Your task to perform on an android device: check android version Image 0: 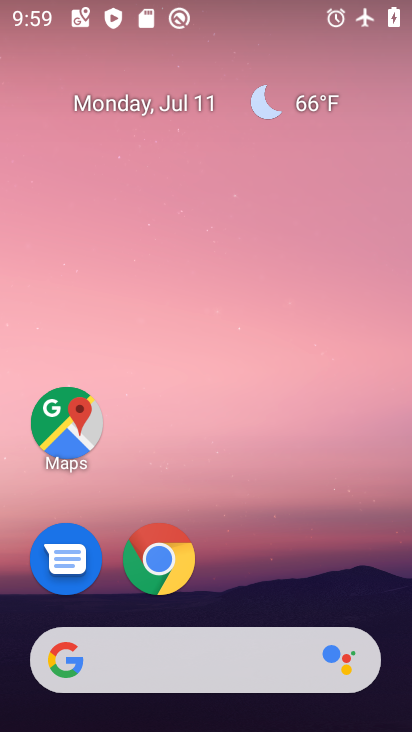
Step 0: drag from (366, 567) to (367, 173)
Your task to perform on an android device: check android version Image 1: 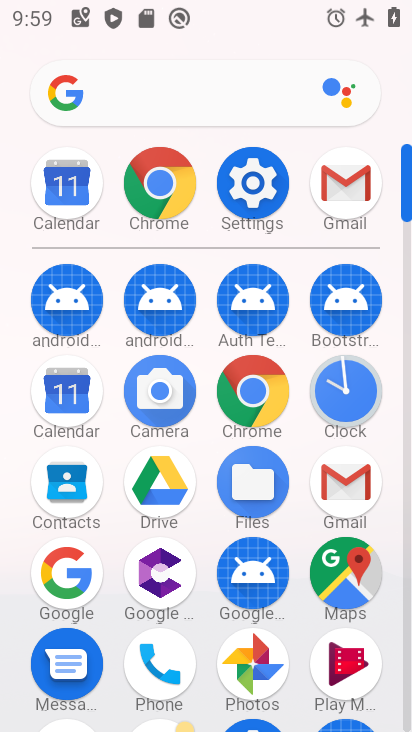
Step 1: click (269, 200)
Your task to perform on an android device: check android version Image 2: 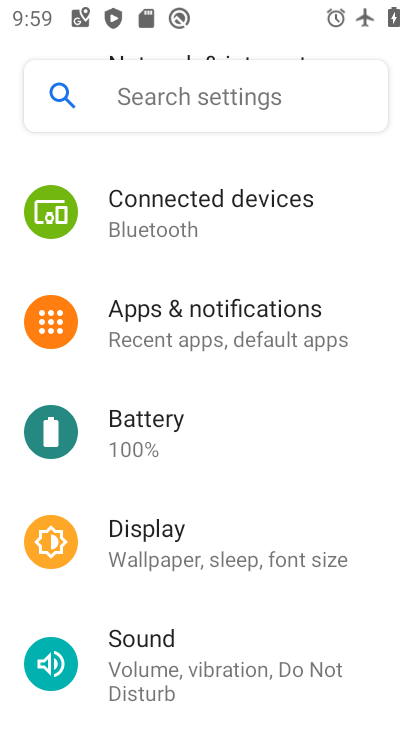
Step 2: drag from (369, 457) to (344, 249)
Your task to perform on an android device: check android version Image 3: 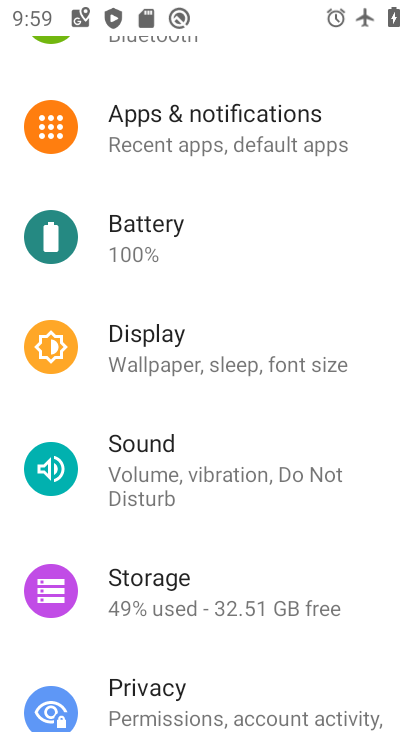
Step 3: drag from (337, 536) to (356, 329)
Your task to perform on an android device: check android version Image 4: 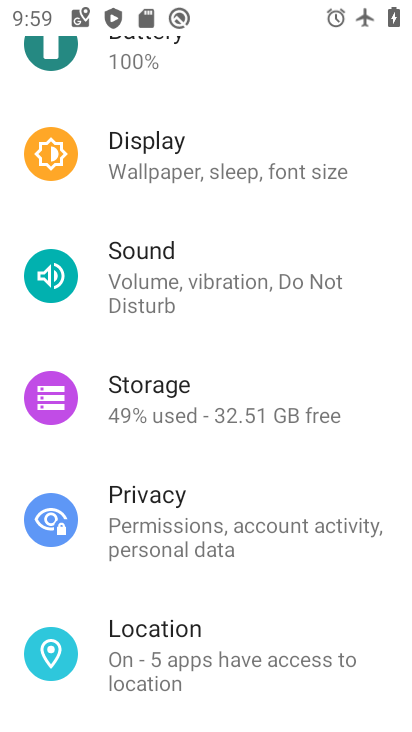
Step 4: drag from (357, 478) to (358, 368)
Your task to perform on an android device: check android version Image 5: 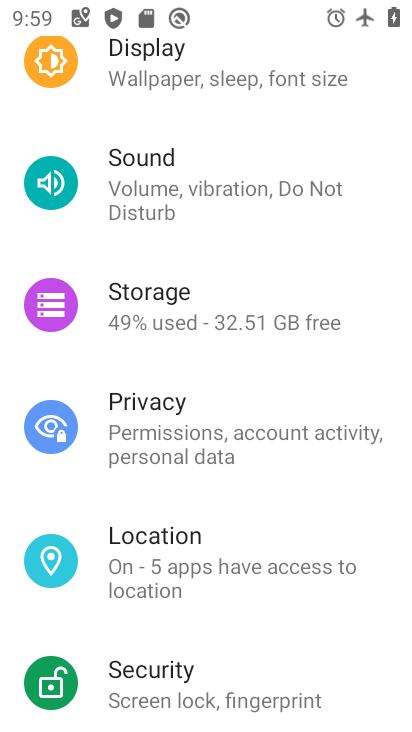
Step 5: drag from (354, 600) to (353, 462)
Your task to perform on an android device: check android version Image 6: 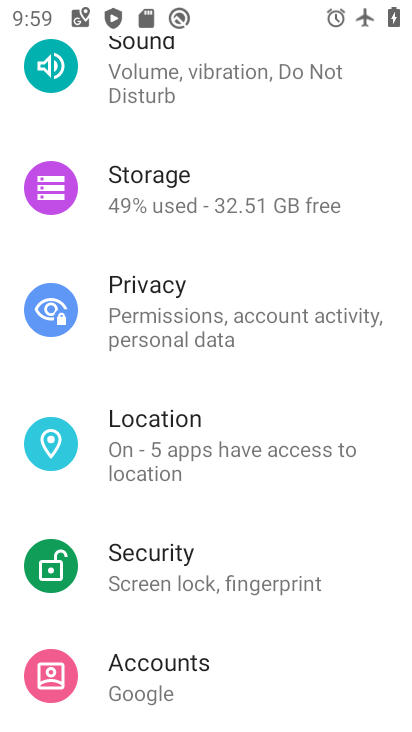
Step 6: drag from (362, 617) to (361, 469)
Your task to perform on an android device: check android version Image 7: 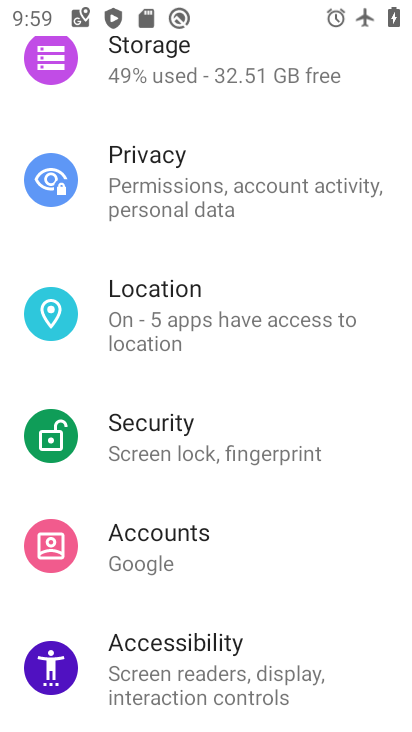
Step 7: drag from (366, 550) to (364, 367)
Your task to perform on an android device: check android version Image 8: 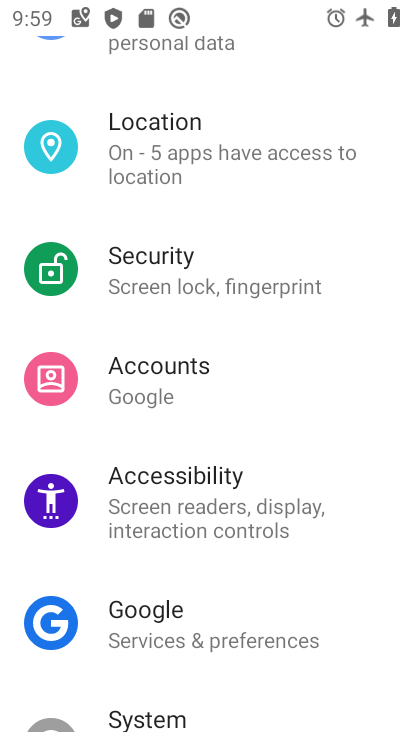
Step 8: drag from (369, 585) to (354, 455)
Your task to perform on an android device: check android version Image 9: 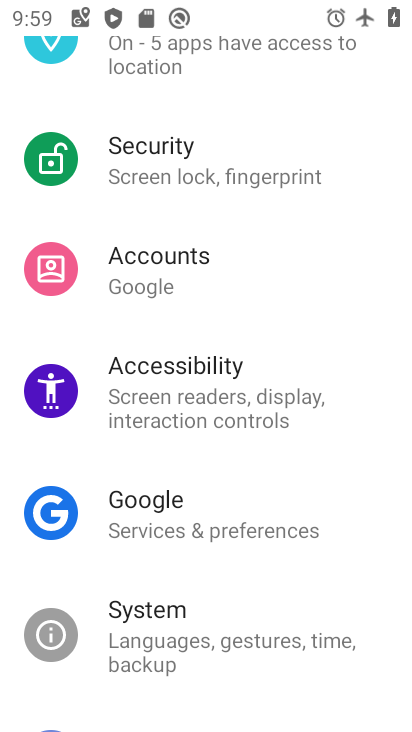
Step 9: drag from (348, 571) to (341, 426)
Your task to perform on an android device: check android version Image 10: 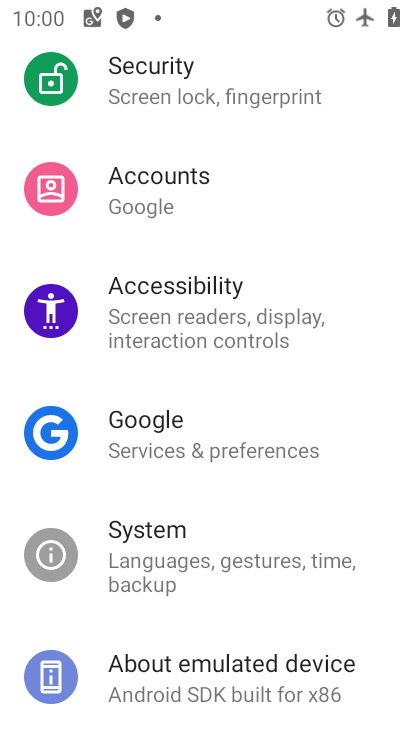
Step 10: click (275, 562)
Your task to perform on an android device: check android version Image 11: 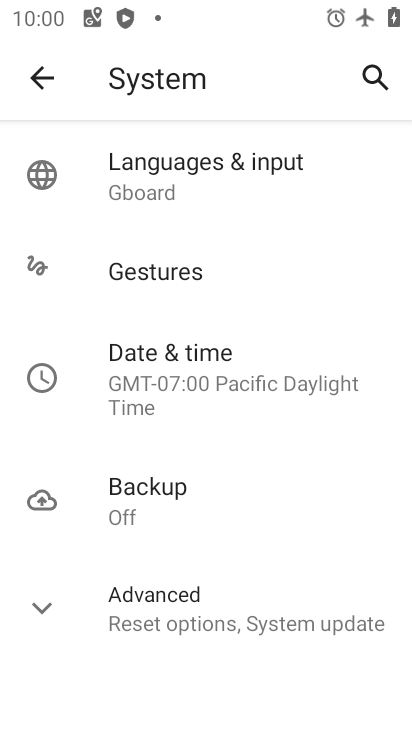
Step 11: click (231, 607)
Your task to perform on an android device: check android version Image 12: 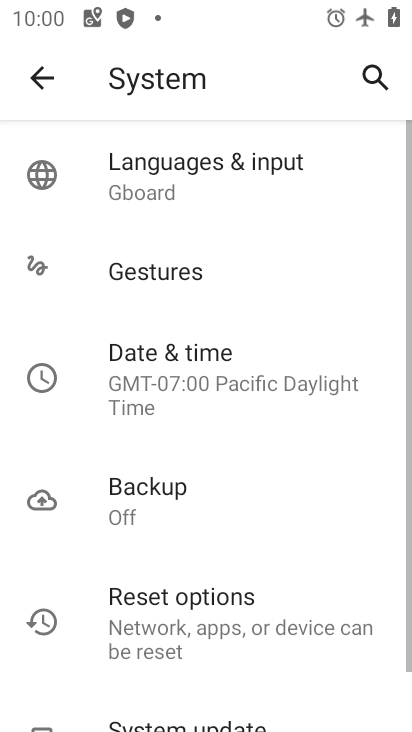
Step 12: drag from (293, 577) to (295, 424)
Your task to perform on an android device: check android version Image 13: 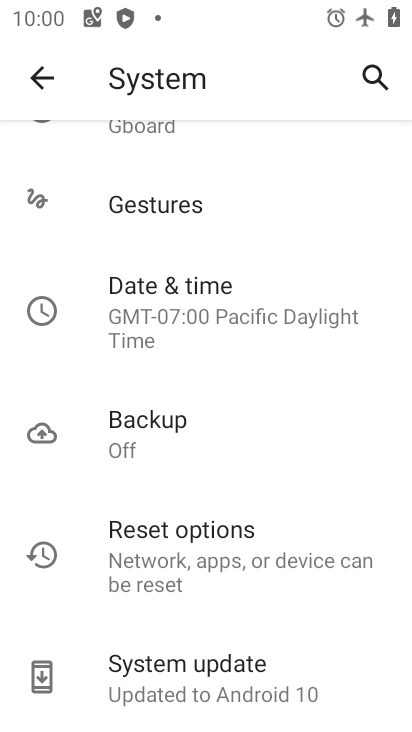
Step 13: click (249, 689)
Your task to perform on an android device: check android version Image 14: 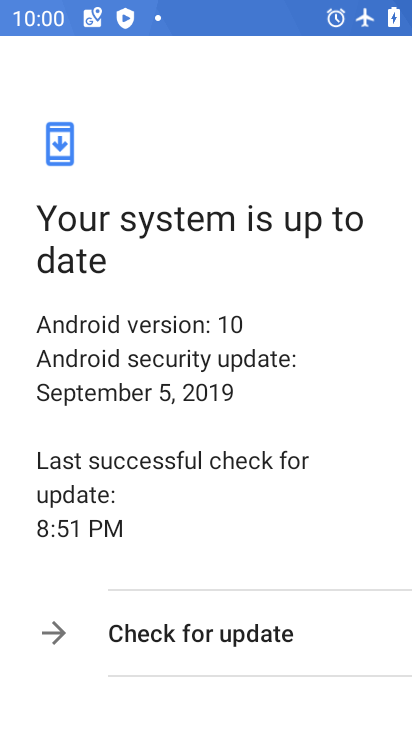
Step 14: task complete